Your task to perform on an android device: turn pop-ups on in chrome Image 0: 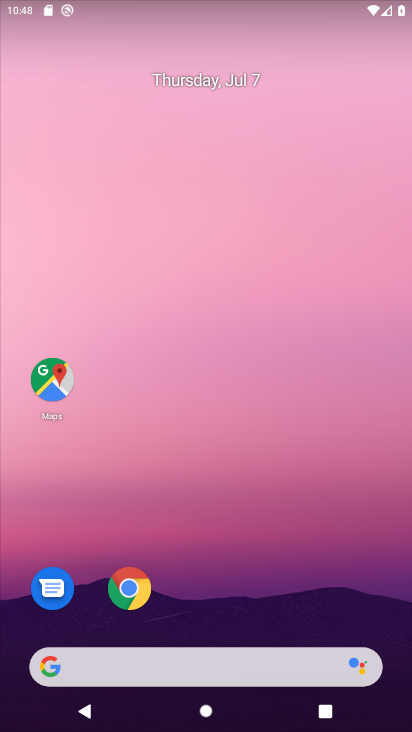
Step 0: click (133, 590)
Your task to perform on an android device: turn pop-ups on in chrome Image 1: 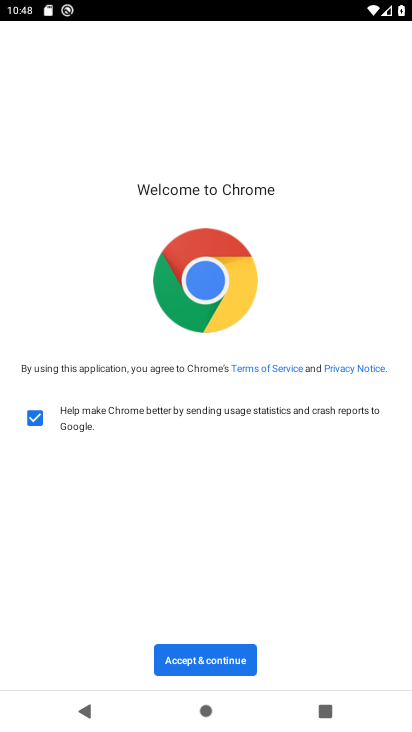
Step 1: click (209, 661)
Your task to perform on an android device: turn pop-ups on in chrome Image 2: 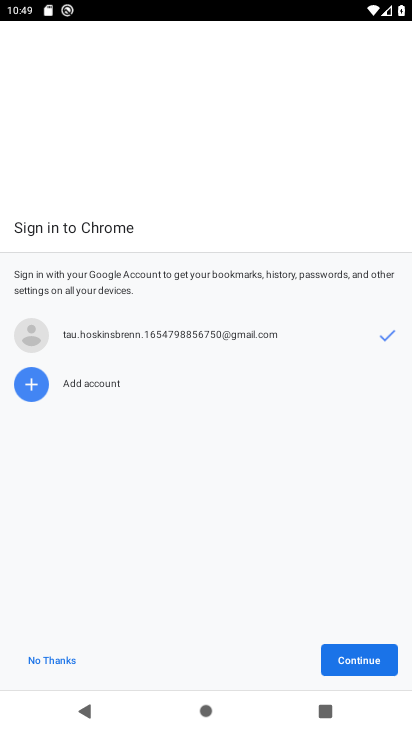
Step 2: click (375, 668)
Your task to perform on an android device: turn pop-ups on in chrome Image 3: 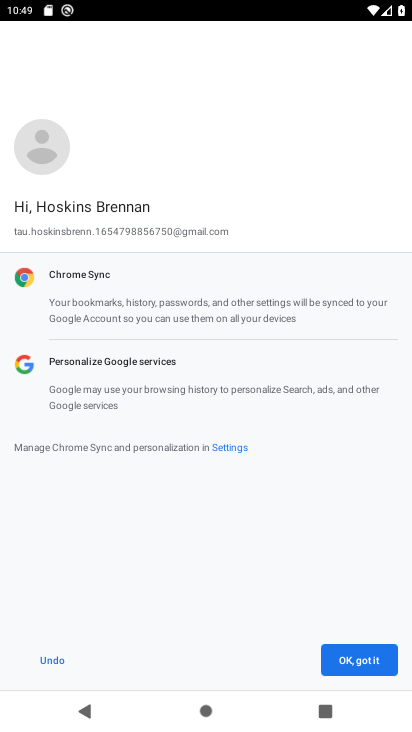
Step 3: click (370, 664)
Your task to perform on an android device: turn pop-ups on in chrome Image 4: 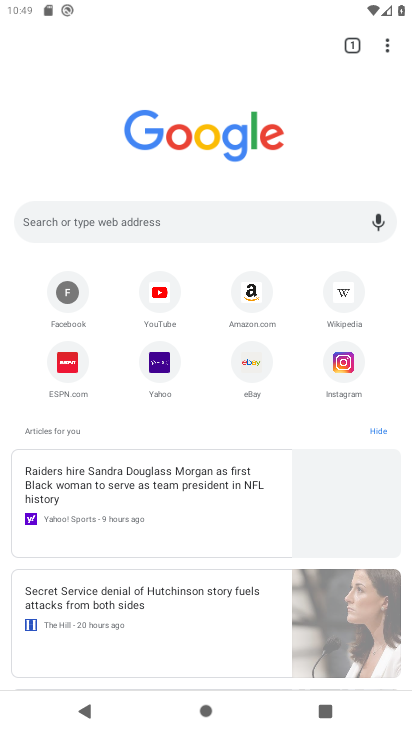
Step 4: drag from (388, 44) to (244, 378)
Your task to perform on an android device: turn pop-ups on in chrome Image 5: 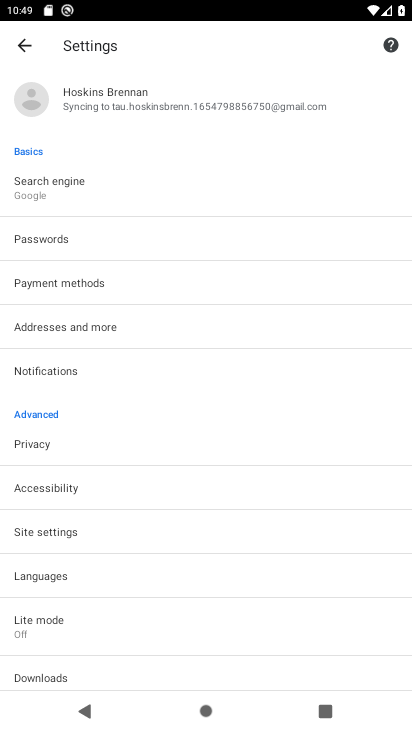
Step 5: click (83, 528)
Your task to perform on an android device: turn pop-ups on in chrome Image 6: 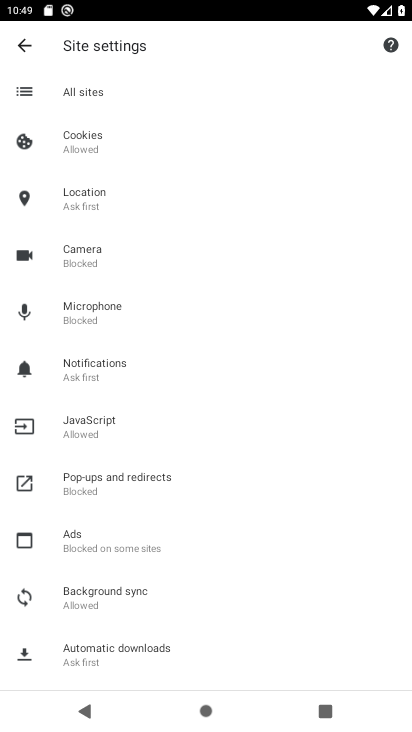
Step 6: click (114, 484)
Your task to perform on an android device: turn pop-ups on in chrome Image 7: 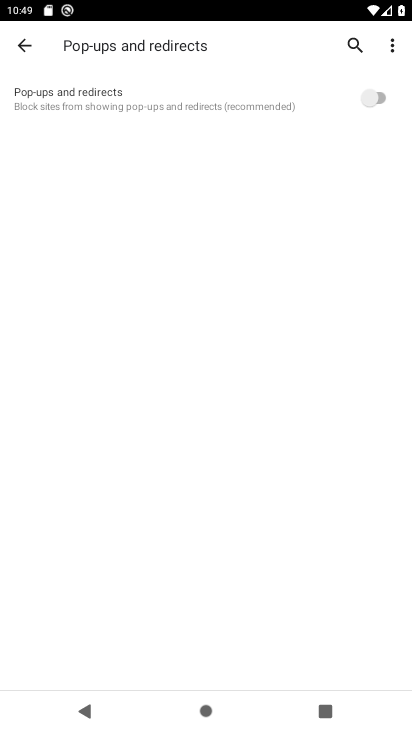
Step 7: click (378, 93)
Your task to perform on an android device: turn pop-ups on in chrome Image 8: 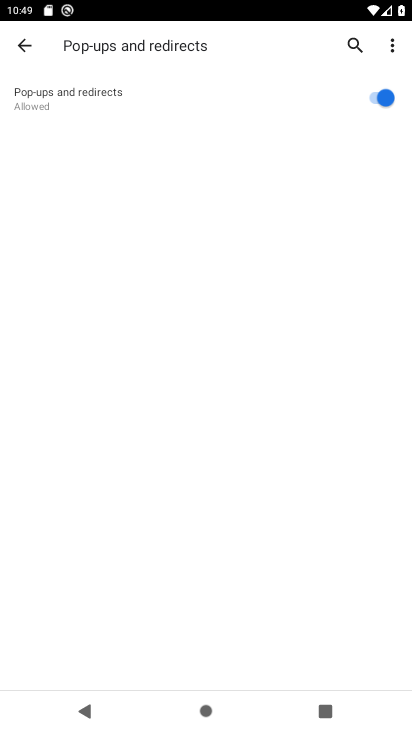
Step 8: task complete